Your task to perform on an android device: Clear the shopping cart on target. Add "sony triple a" to the cart on target, then select checkout. Image 0: 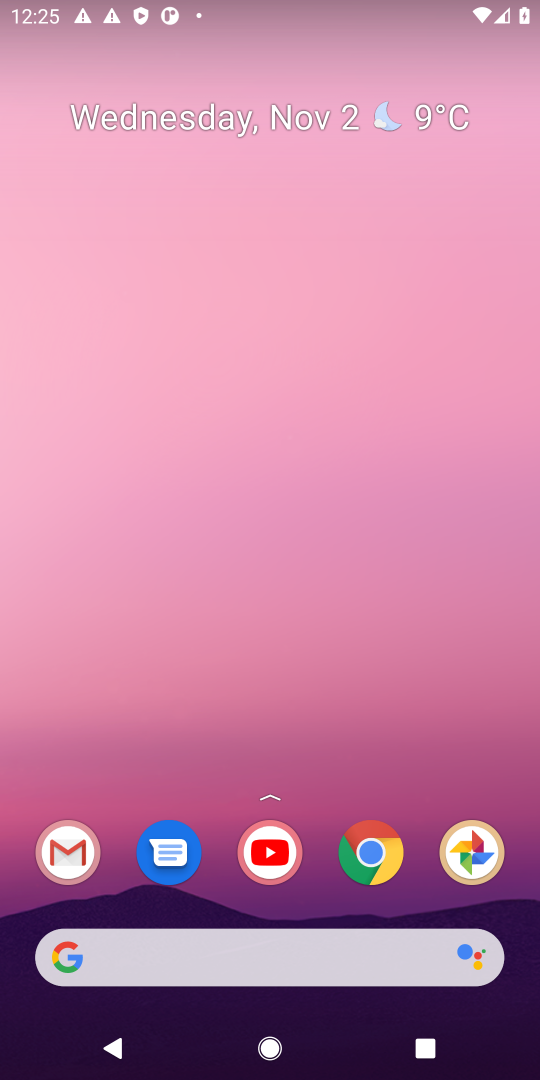
Step 0: drag from (222, 871) to (248, 49)
Your task to perform on an android device: Clear the shopping cart on target. Add "sony triple a" to the cart on target, then select checkout. Image 1: 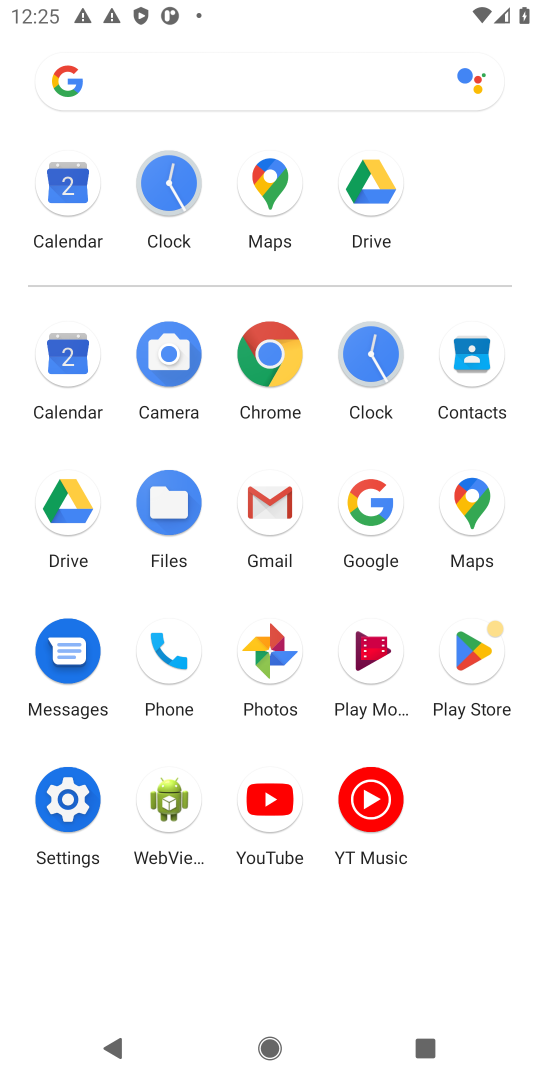
Step 1: click (364, 522)
Your task to perform on an android device: Clear the shopping cart on target. Add "sony triple a" to the cart on target, then select checkout. Image 2: 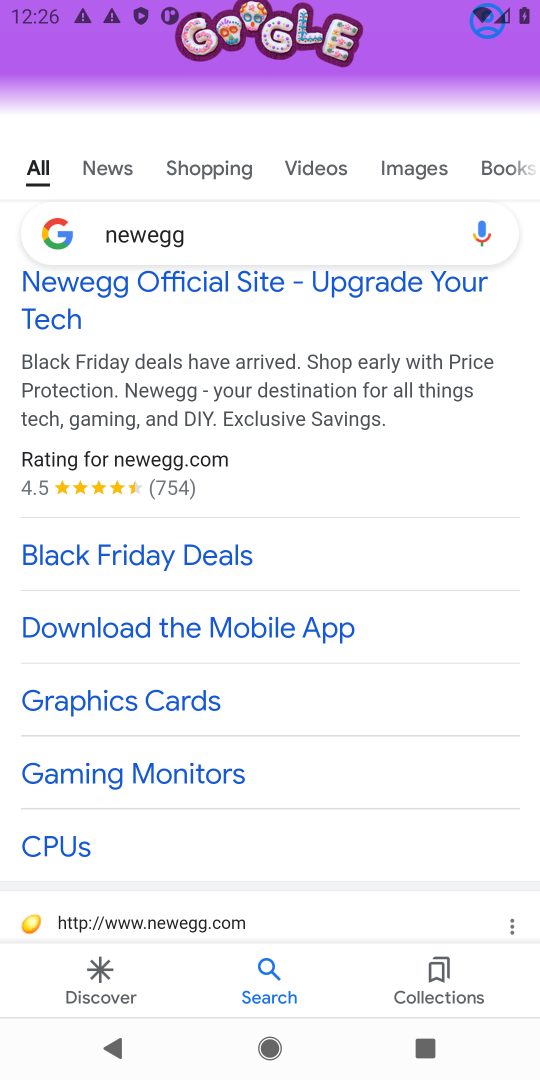
Step 2: click (369, 242)
Your task to perform on an android device: Clear the shopping cart on target. Add "sony triple a" to the cart on target, then select checkout. Image 3: 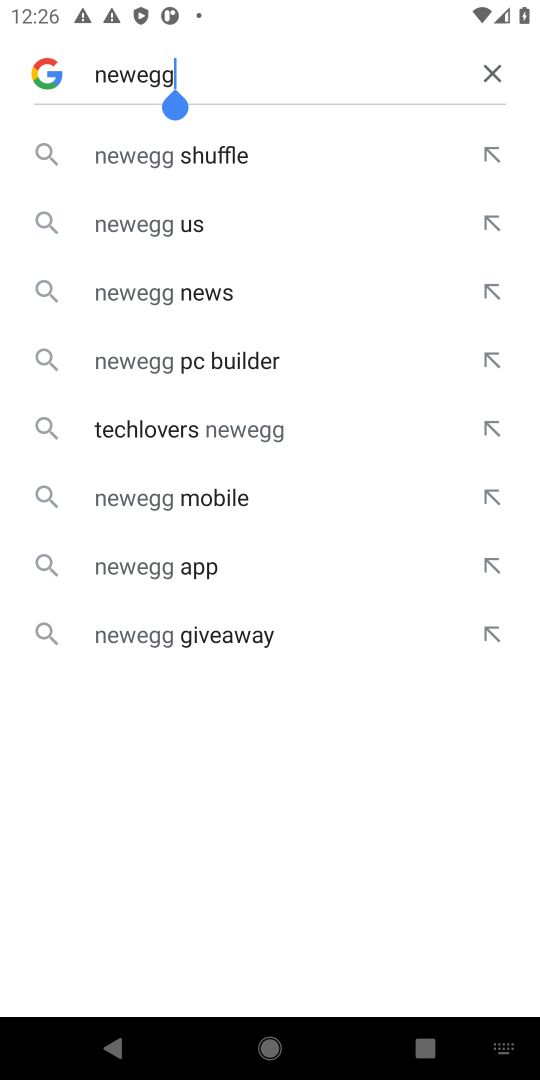
Step 3: click (494, 71)
Your task to perform on an android device: Clear the shopping cart on target. Add "sony triple a" to the cart on target, then select checkout. Image 4: 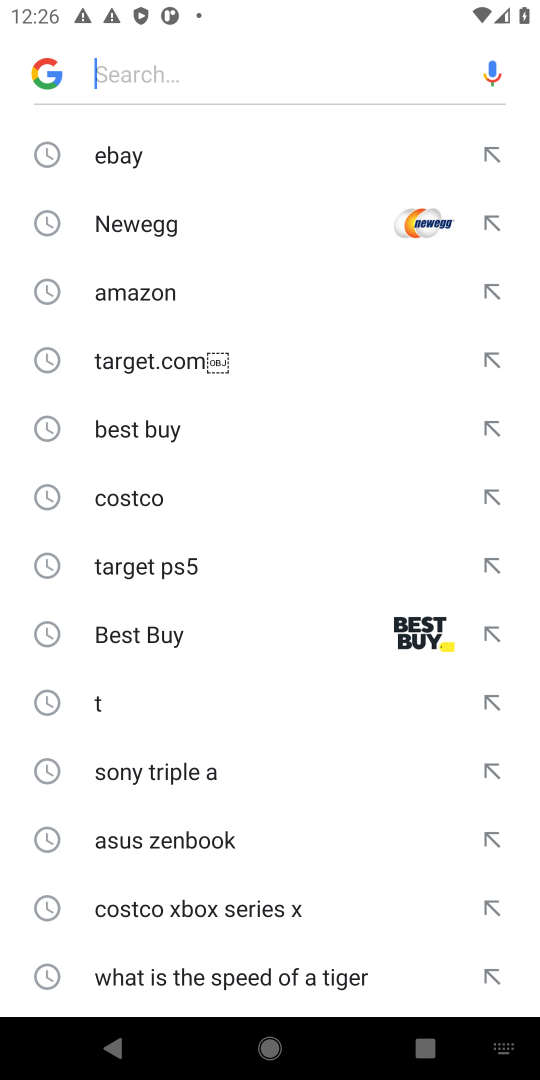
Step 4: type "target"
Your task to perform on an android device: Clear the shopping cart on target. Add "sony triple a" to the cart on target, then select checkout. Image 5: 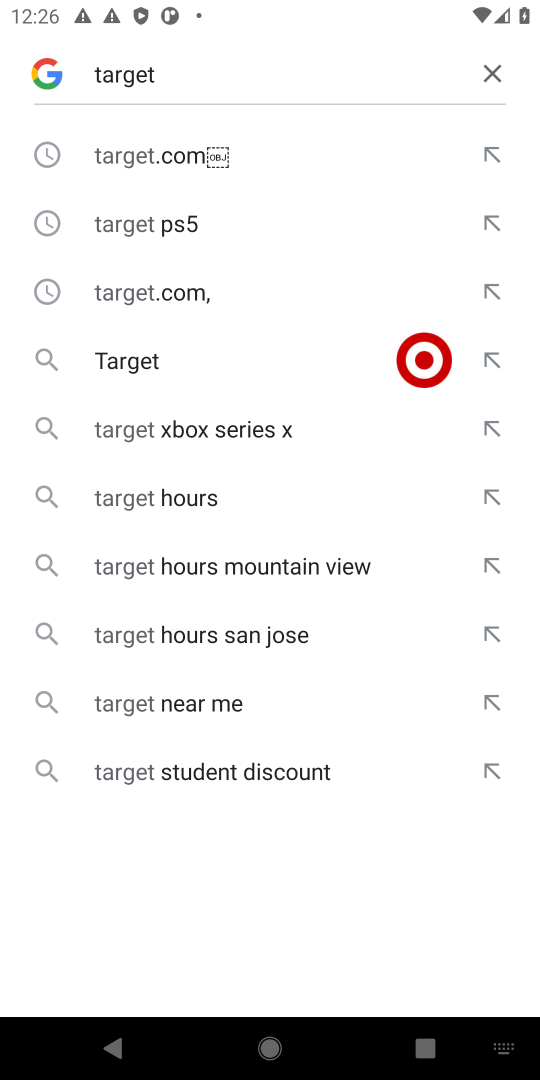
Step 5: click (265, 166)
Your task to perform on an android device: Clear the shopping cart on target. Add "sony triple a" to the cart on target, then select checkout. Image 6: 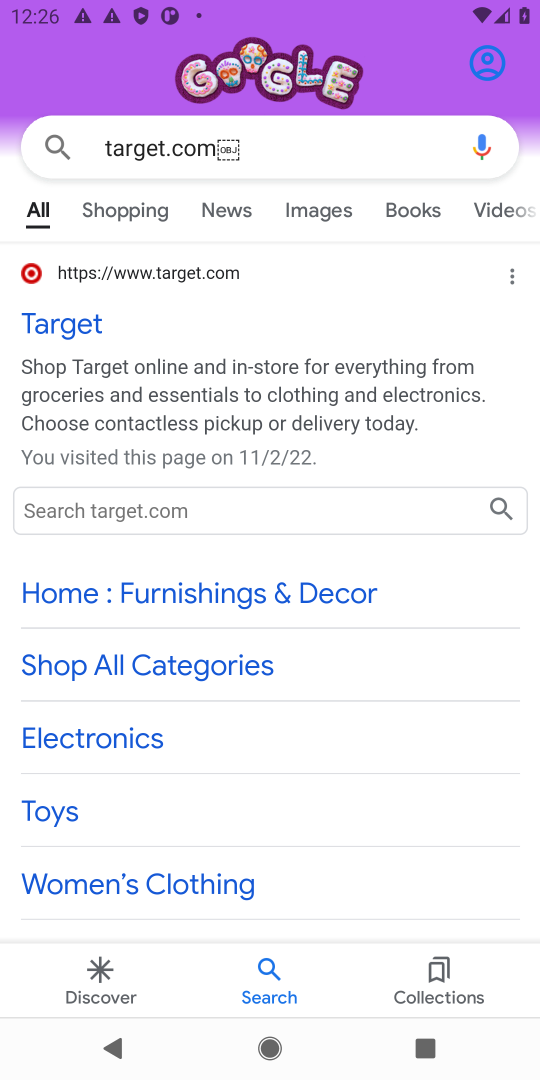
Step 6: click (79, 351)
Your task to perform on an android device: Clear the shopping cart on target. Add "sony triple a" to the cart on target, then select checkout. Image 7: 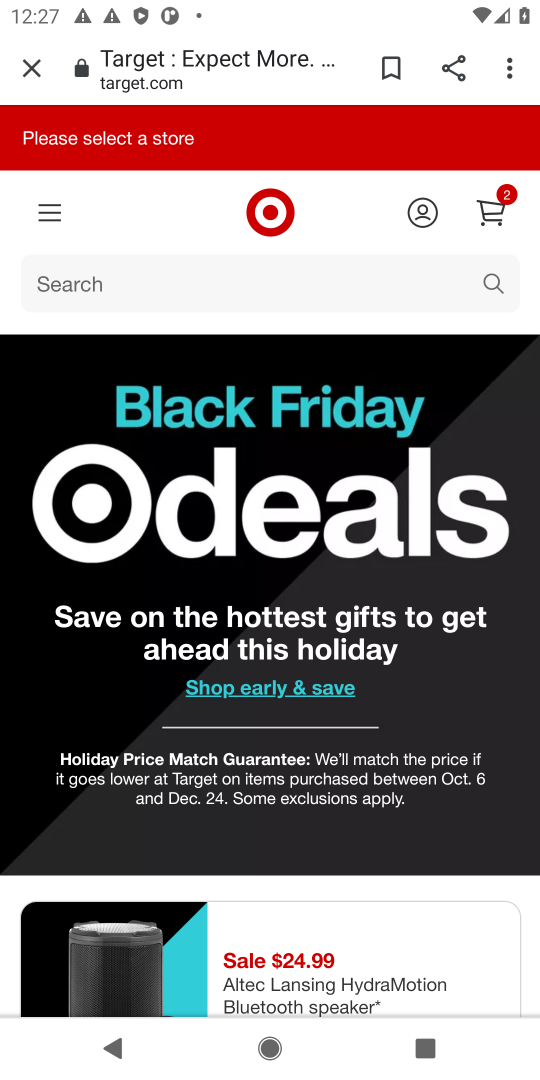
Step 7: click (344, 284)
Your task to perform on an android device: Clear the shopping cart on target. Add "sony triple a" to the cart on target, then select checkout. Image 8: 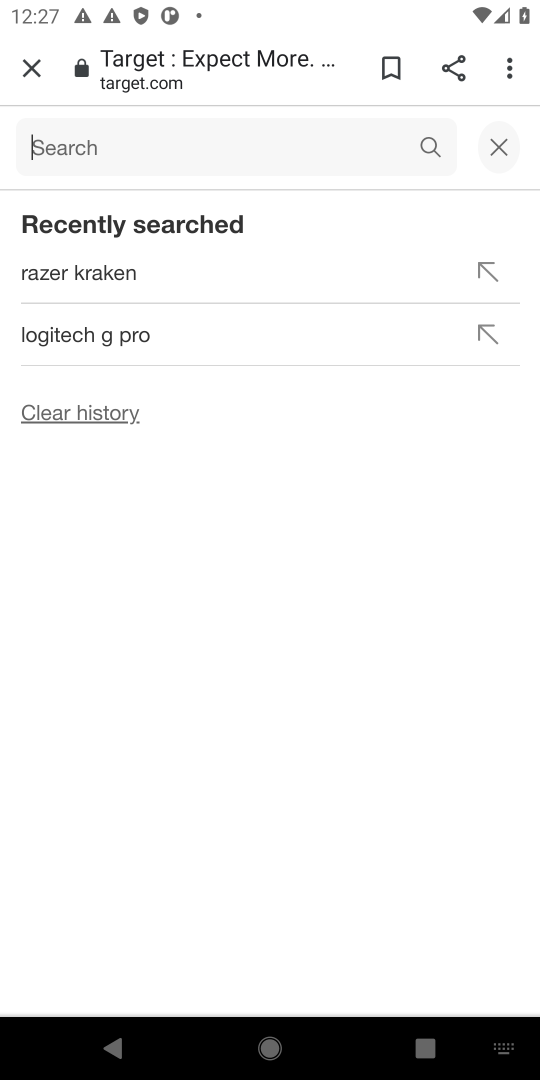
Step 8: type "sony triple a"
Your task to perform on an android device: Clear the shopping cart on target. Add "sony triple a" to the cart on target, then select checkout. Image 9: 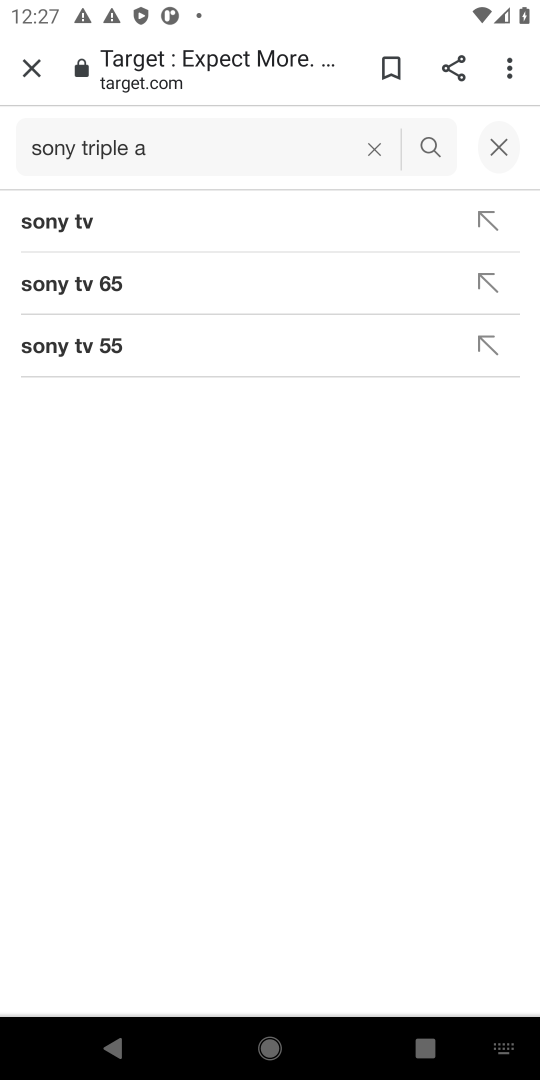
Step 9: click (308, 225)
Your task to perform on an android device: Clear the shopping cart on target. Add "sony triple a" to the cart on target, then select checkout. Image 10: 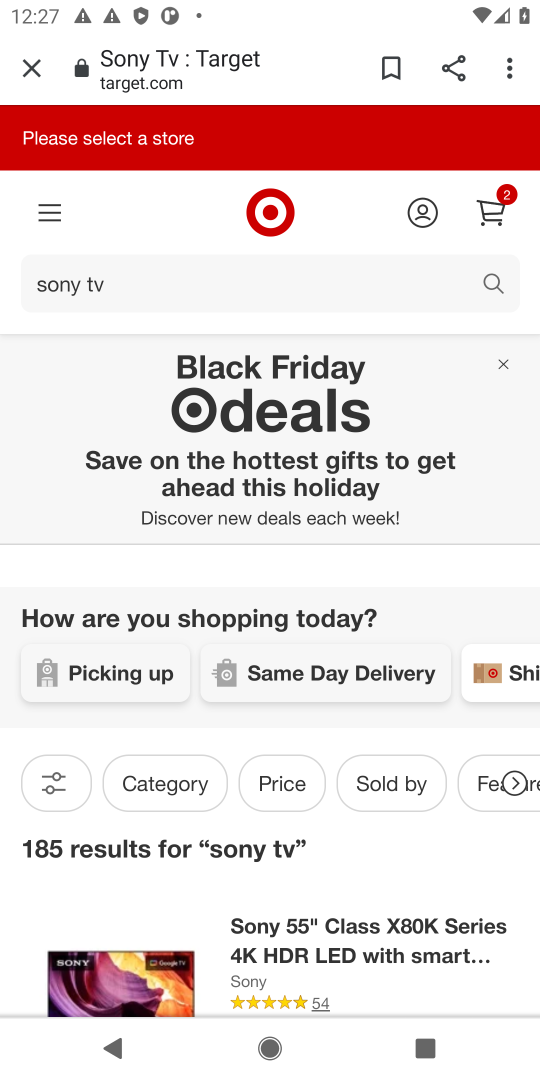
Step 10: drag from (326, 920) to (391, 610)
Your task to perform on an android device: Clear the shopping cart on target. Add "sony triple a" to the cart on target, then select checkout. Image 11: 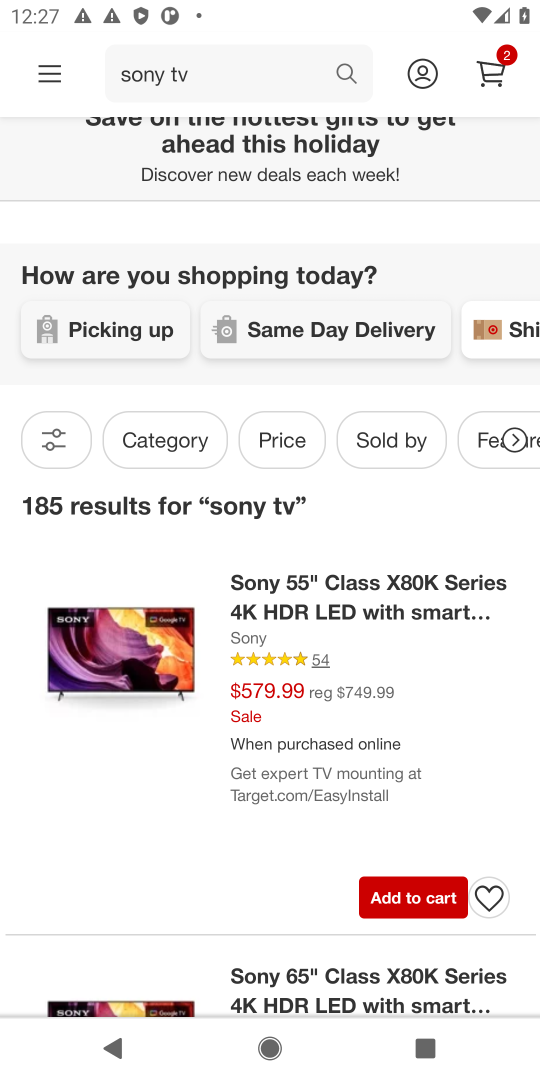
Step 11: click (360, 613)
Your task to perform on an android device: Clear the shopping cart on target. Add "sony triple a" to the cart on target, then select checkout. Image 12: 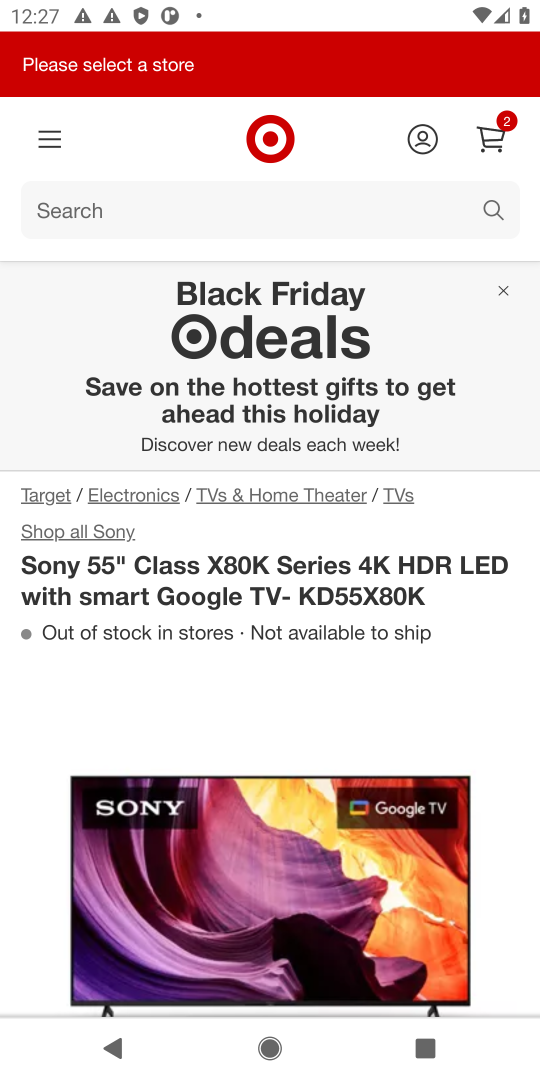
Step 12: drag from (451, 866) to (434, 147)
Your task to perform on an android device: Clear the shopping cart on target. Add "sony triple a" to the cart on target, then select checkout. Image 13: 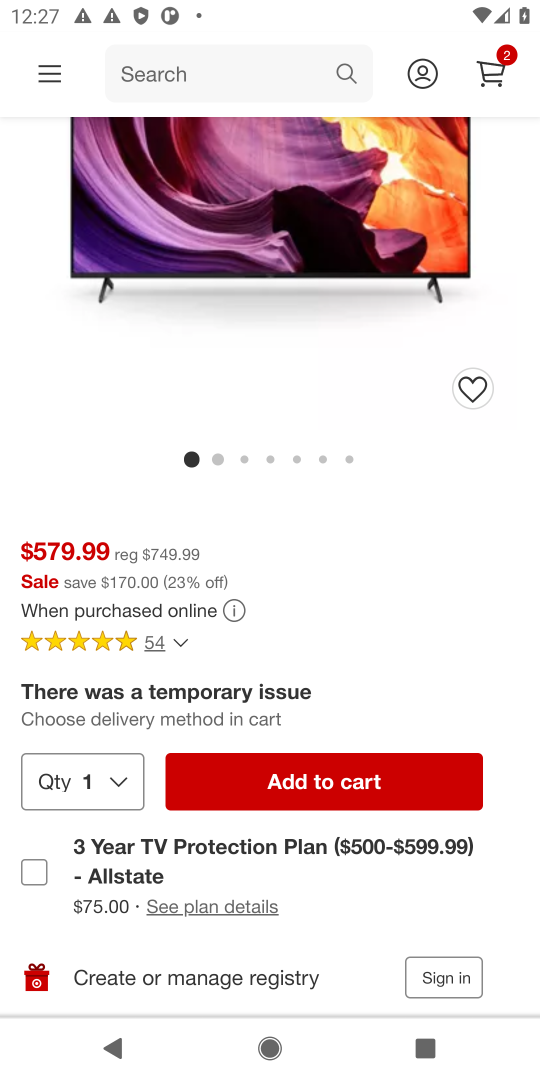
Step 13: drag from (408, 688) to (480, 120)
Your task to perform on an android device: Clear the shopping cart on target. Add "sony triple a" to the cart on target, then select checkout. Image 14: 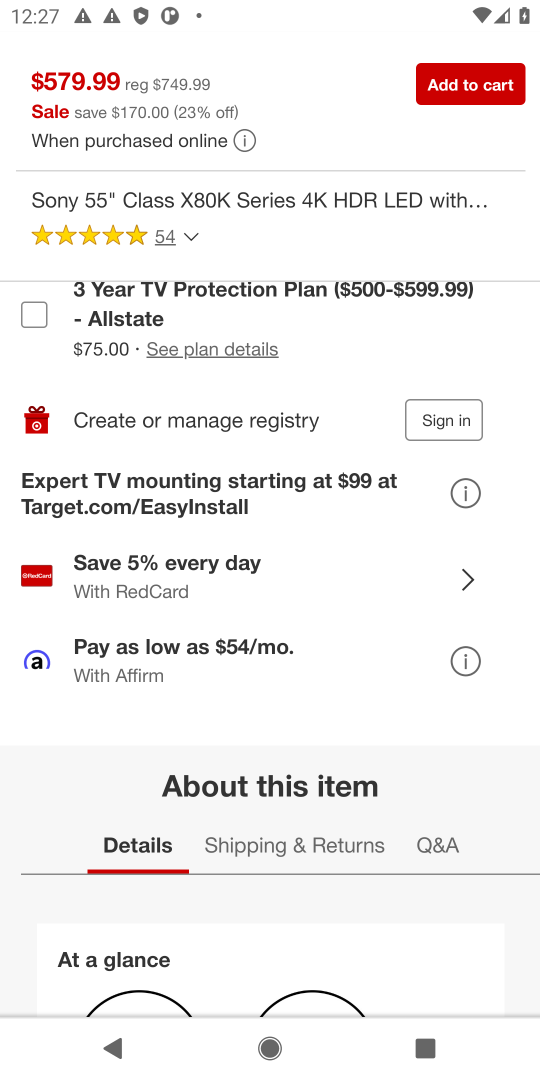
Step 14: click (464, 101)
Your task to perform on an android device: Clear the shopping cart on target. Add "sony triple a" to the cart on target, then select checkout. Image 15: 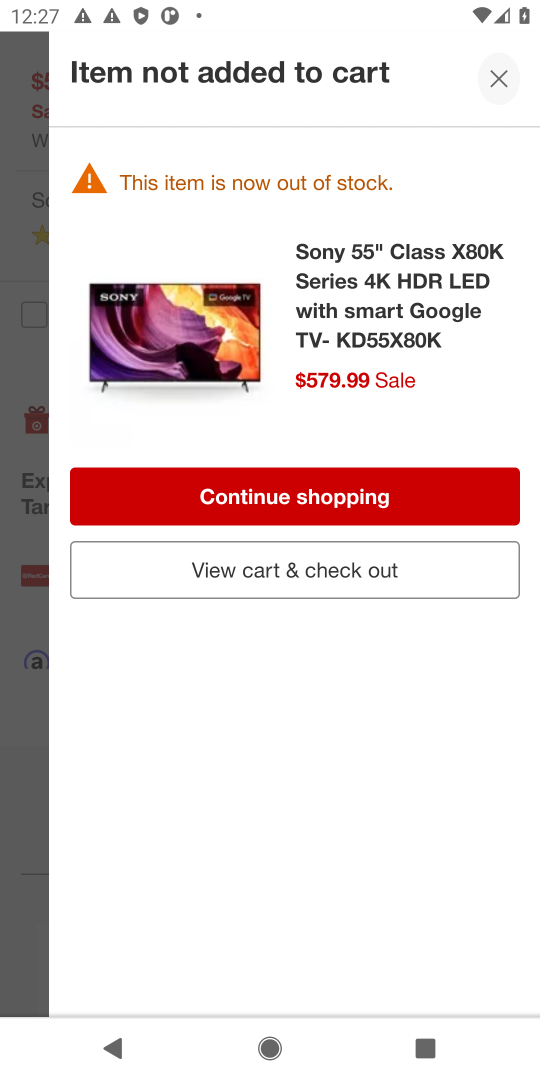
Step 15: click (435, 568)
Your task to perform on an android device: Clear the shopping cart on target. Add "sony triple a" to the cart on target, then select checkout. Image 16: 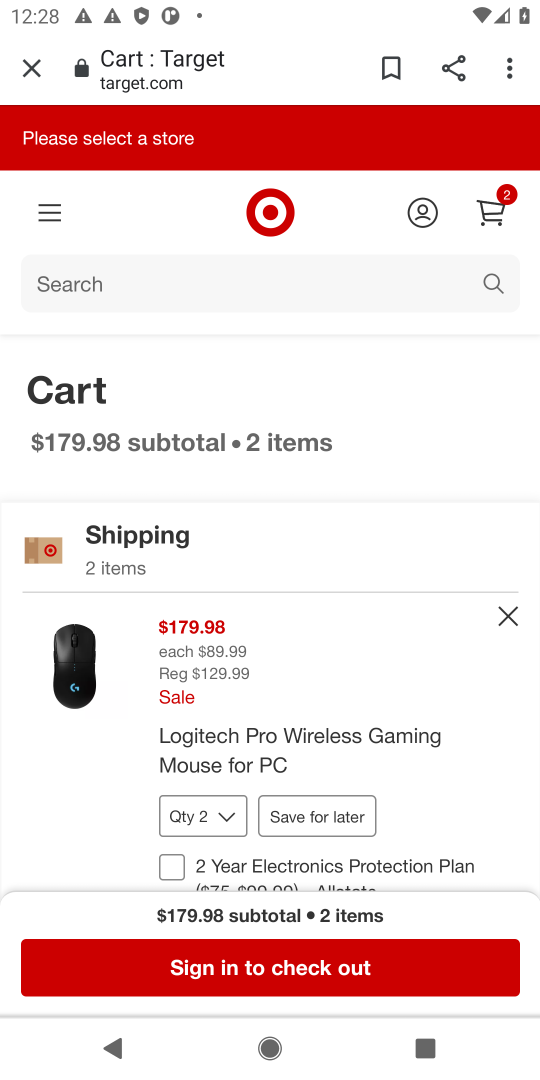
Step 16: drag from (415, 837) to (415, 615)
Your task to perform on an android device: Clear the shopping cart on target. Add "sony triple a" to the cart on target, then select checkout. Image 17: 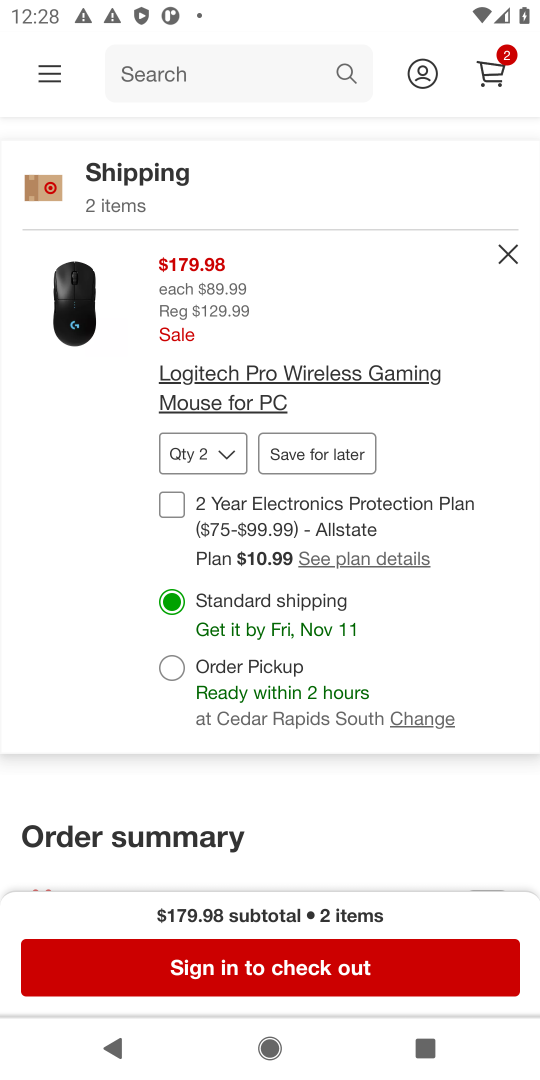
Step 17: click (449, 986)
Your task to perform on an android device: Clear the shopping cart on target. Add "sony triple a" to the cart on target, then select checkout. Image 18: 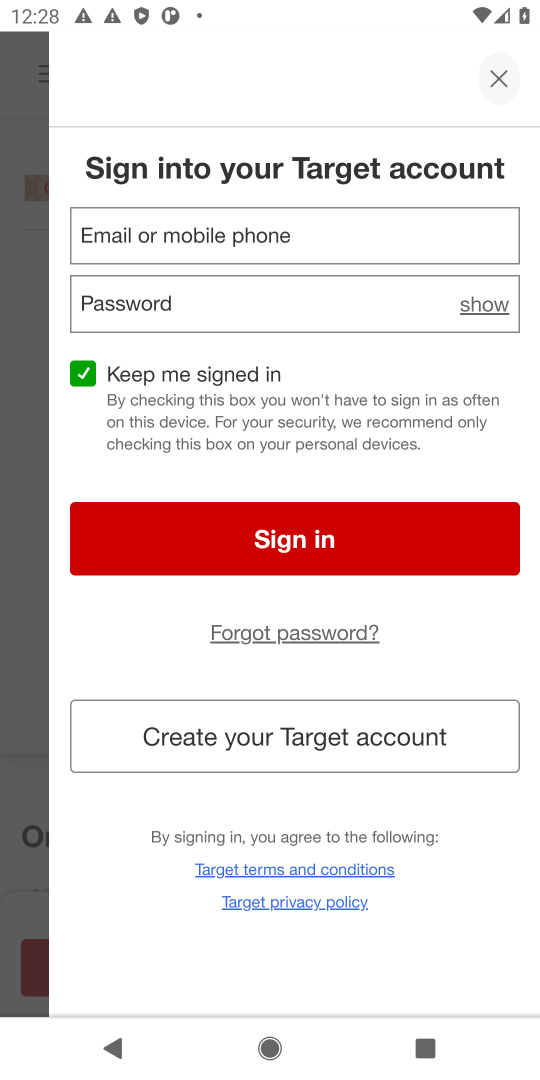
Step 18: task complete